Your task to perform on an android device: open app "HBO Max: Stream TV & Movies" (install if not already installed) and enter user name: "faring@outlook.com" and password: "appropriately" Image 0: 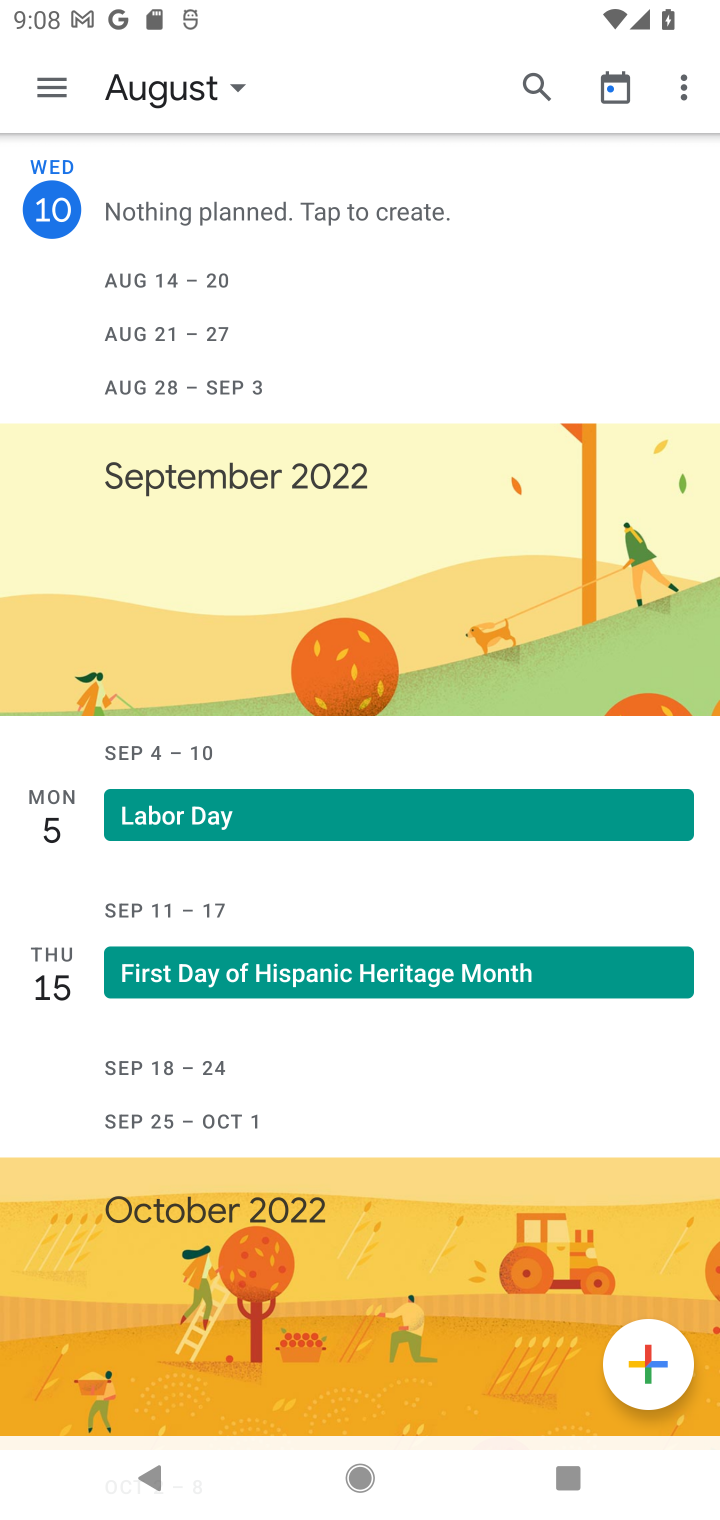
Step 0: press home button
Your task to perform on an android device: open app "HBO Max: Stream TV & Movies" (install if not already installed) and enter user name: "faring@outlook.com" and password: "appropriately" Image 1: 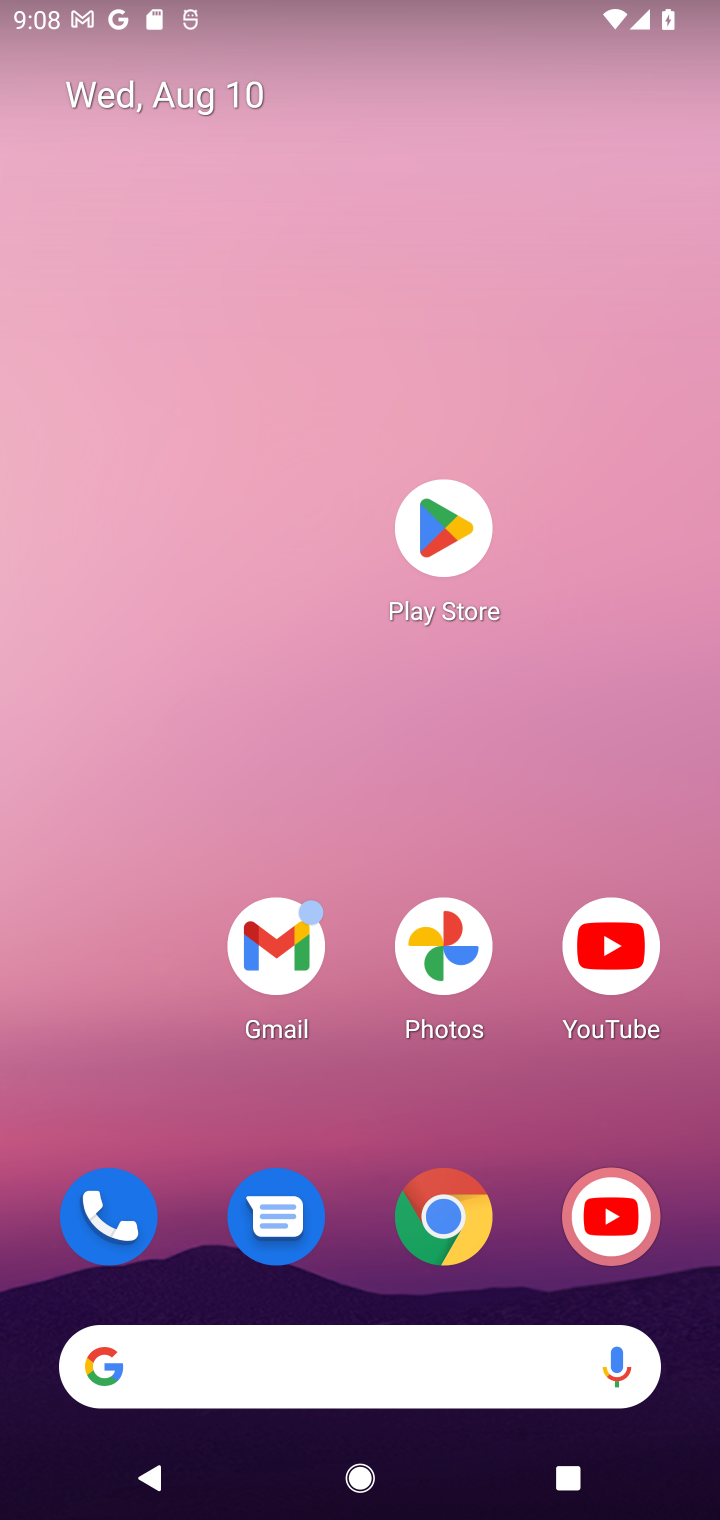
Step 1: click (448, 545)
Your task to perform on an android device: open app "HBO Max: Stream TV & Movies" (install if not already installed) and enter user name: "faring@outlook.com" and password: "appropriately" Image 2: 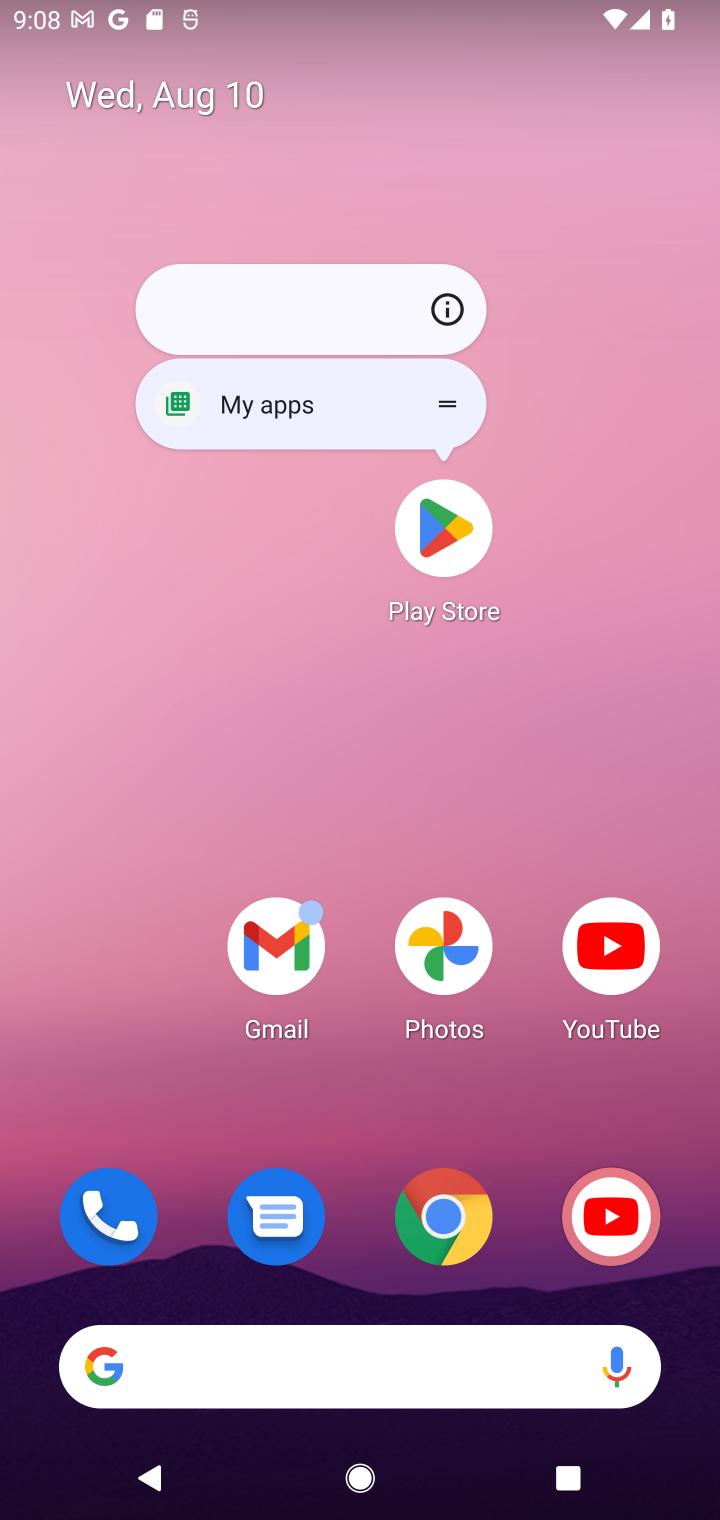
Step 2: click (444, 532)
Your task to perform on an android device: open app "HBO Max: Stream TV & Movies" (install if not already installed) and enter user name: "faring@outlook.com" and password: "appropriately" Image 3: 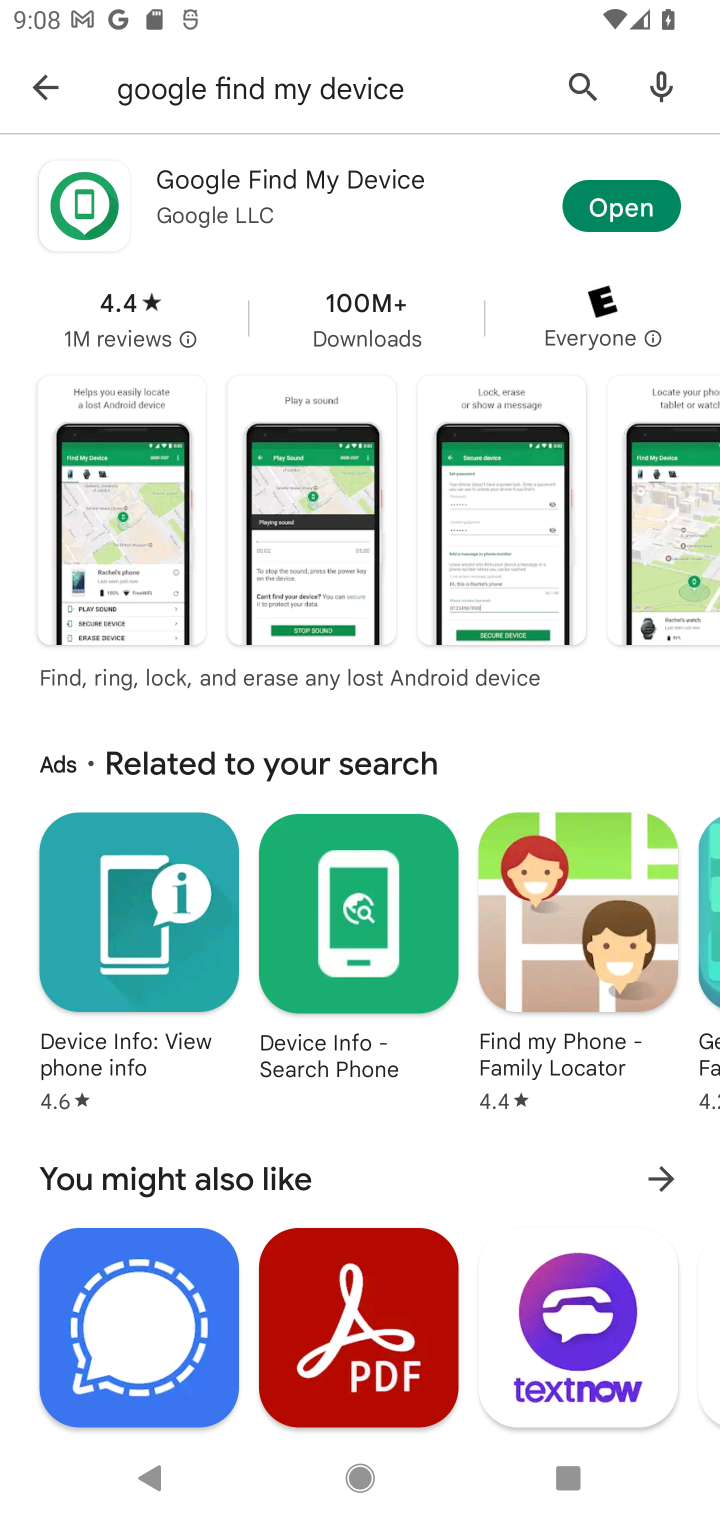
Step 3: click (572, 77)
Your task to perform on an android device: open app "HBO Max: Stream TV & Movies" (install if not already installed) and enter user name: "faring@outlook.com" and password: "appropriately" Image 4: 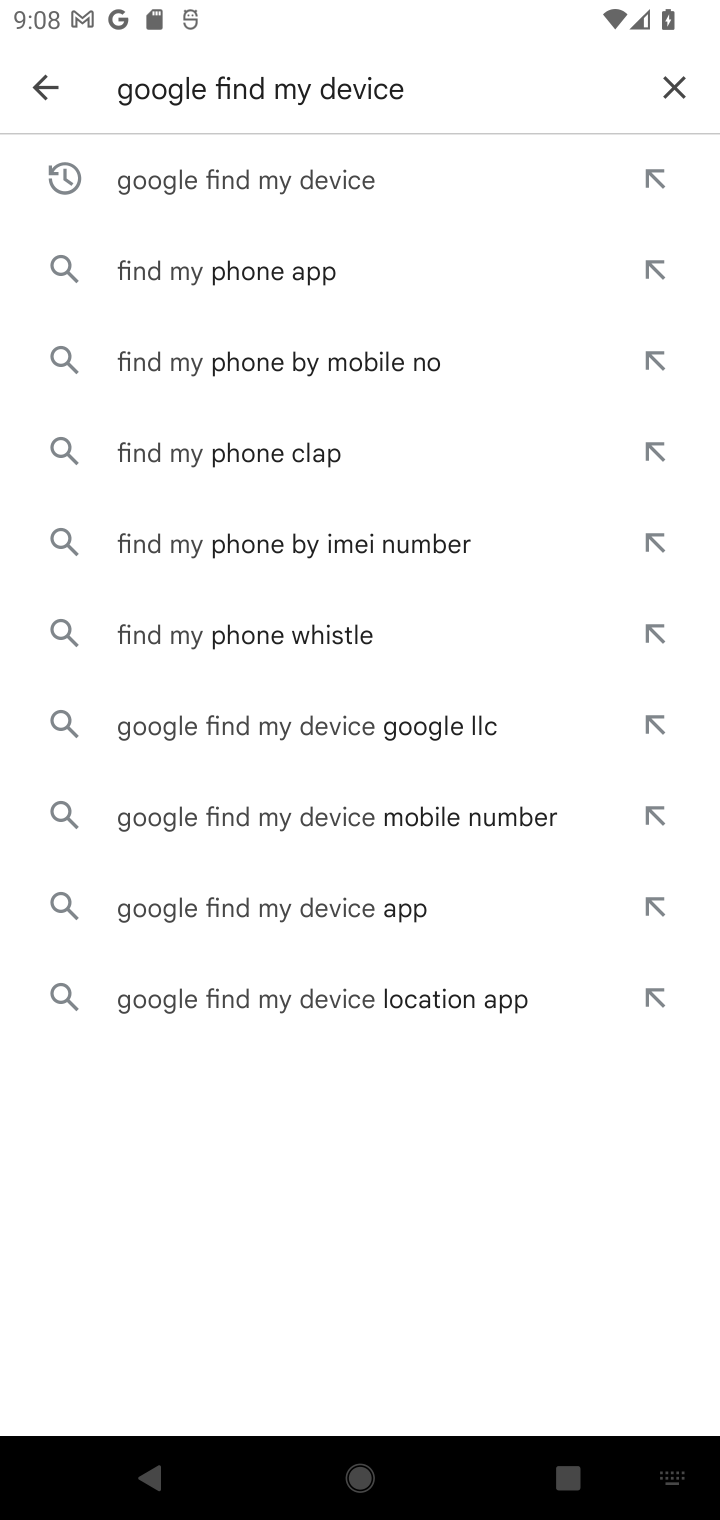
Step 4: click (668, 75)
Your task to perform on an android device: open app "HBO Max: Stream TV & Movies" (install if not already installed) and enter user name: "faring@outlook.com" and password: "appropriately" Image 5: 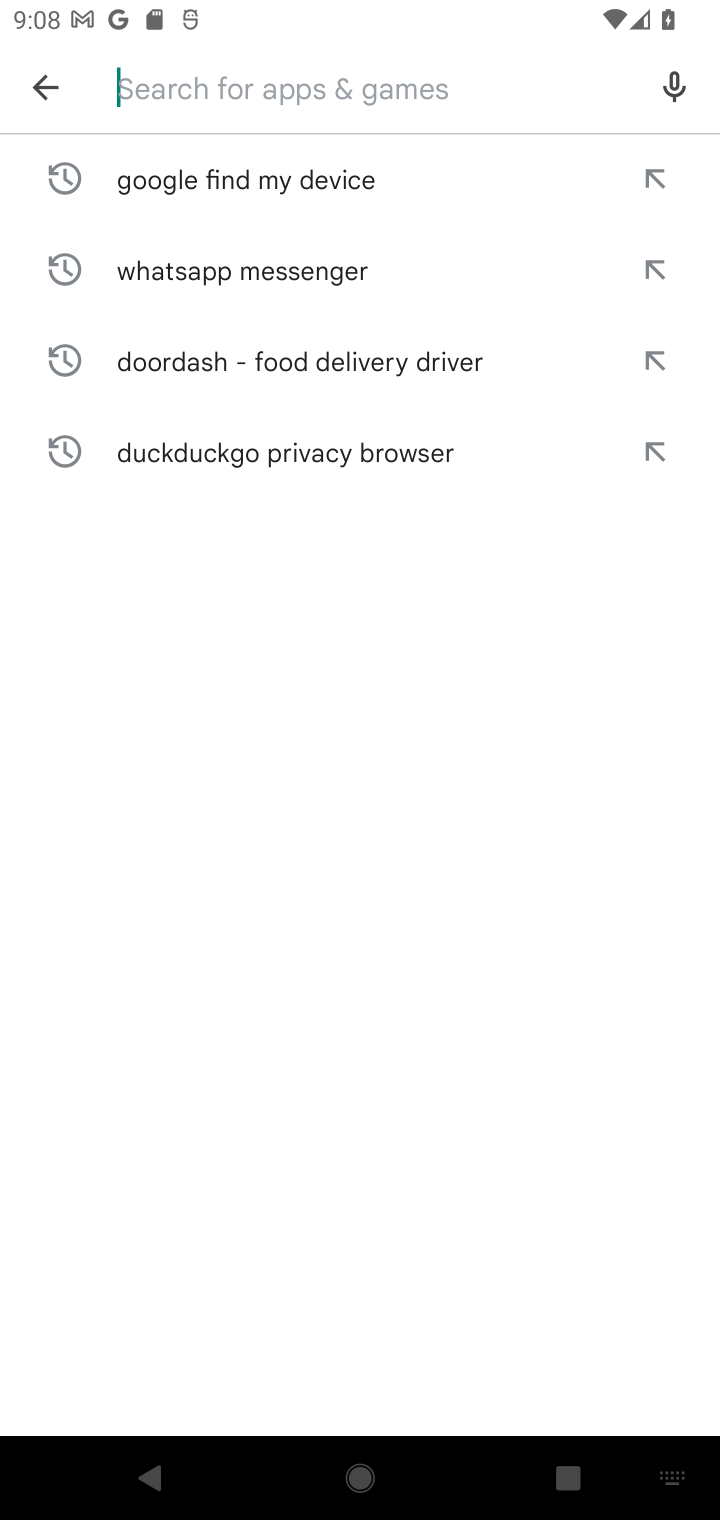
Step 5: type "HBO Max: Stream TV & Movies"
Your task to perform on an android device: open app "HBO Max: Stream TV & Movies" (install if not already installed) and enter user name: "faring@outlook.com" and password: "appropriately" Image 6: 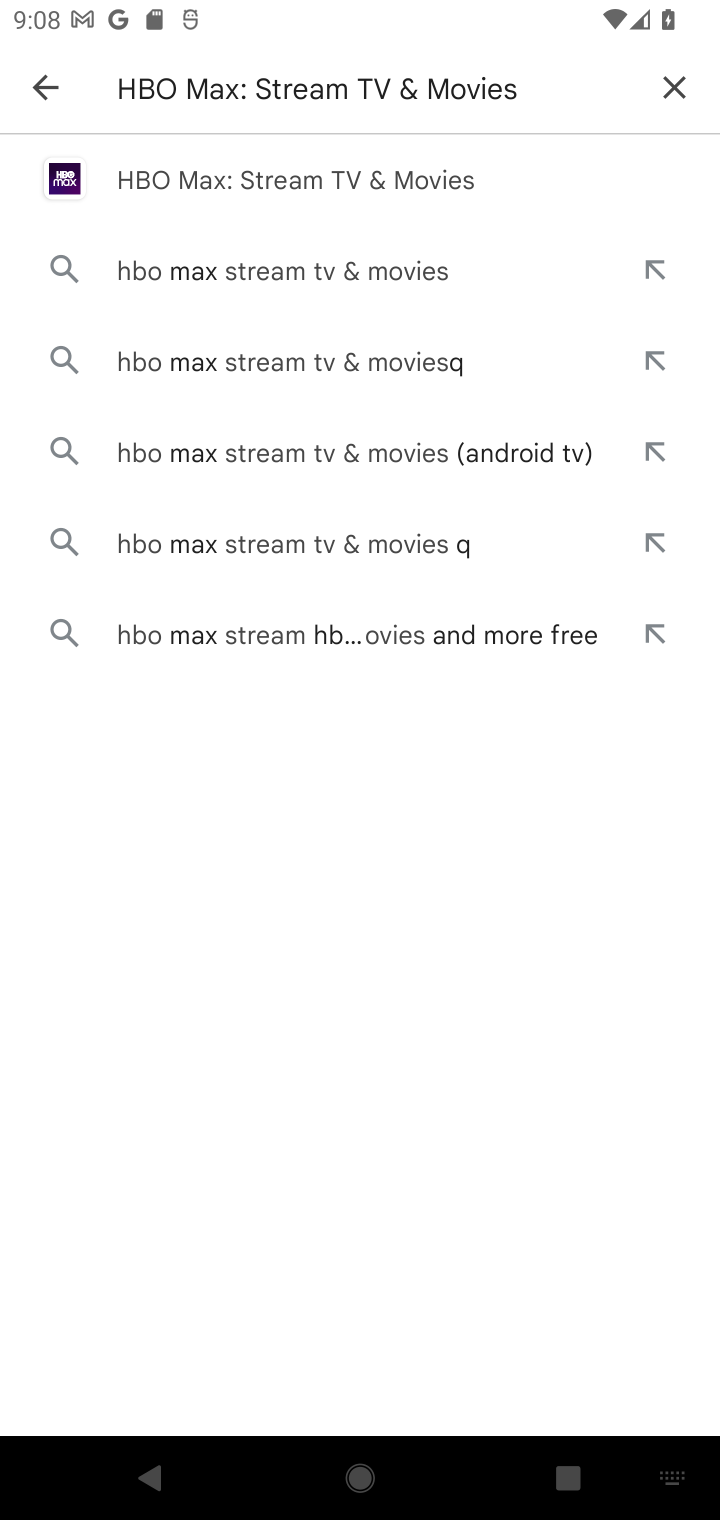
Step 6: click (325, 189)
Your task to perform on an android device: open app "HBO Max: Stream TV & Movies" (install if not already installed) and enter user name: "faring@outlook.com" and password: "appropriately" Image 7: 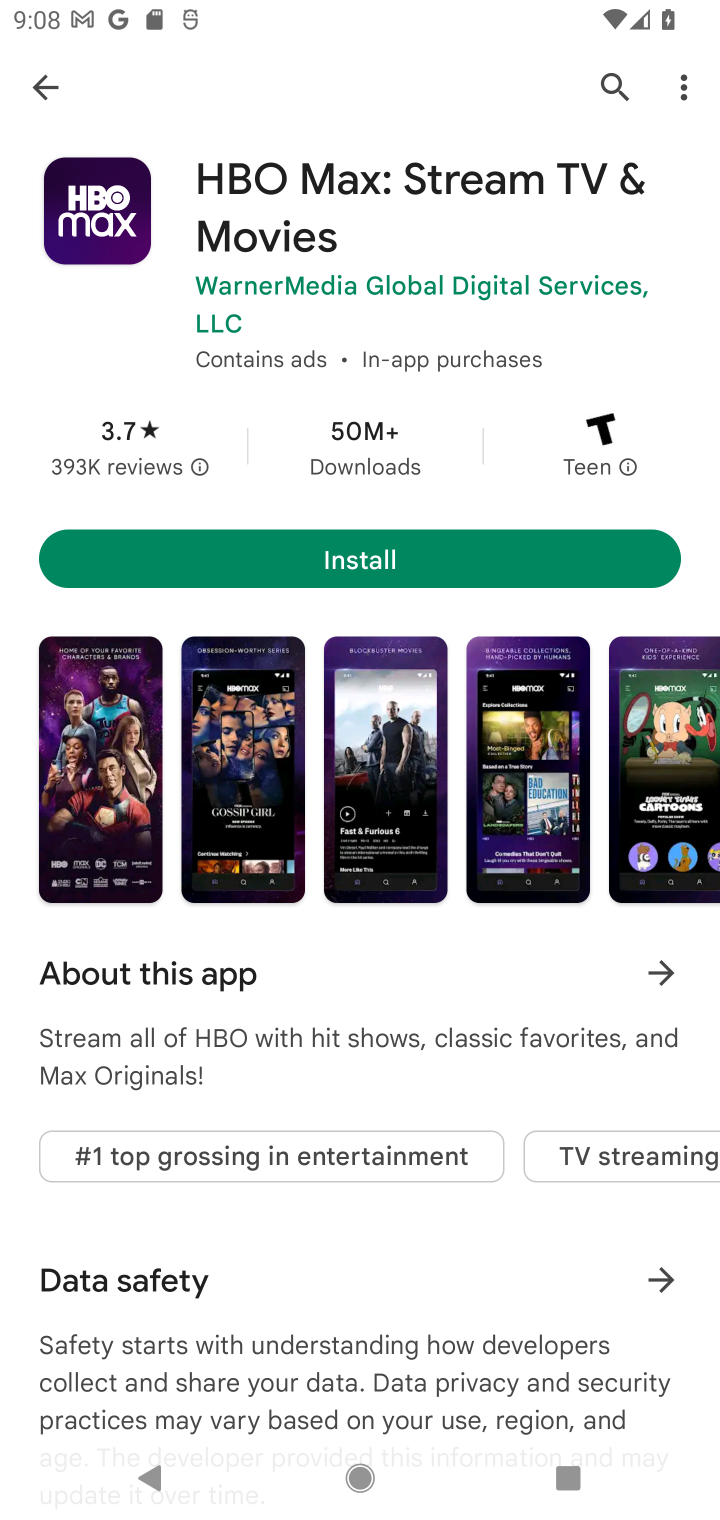
Step 7: click (412, 551)
Your task to perform on an android device: open app "HBO Max: Stream TV & Movies" (install if not already installed) and enter user name: "faring@outlook.com" and password: "appropriately" Image 8: 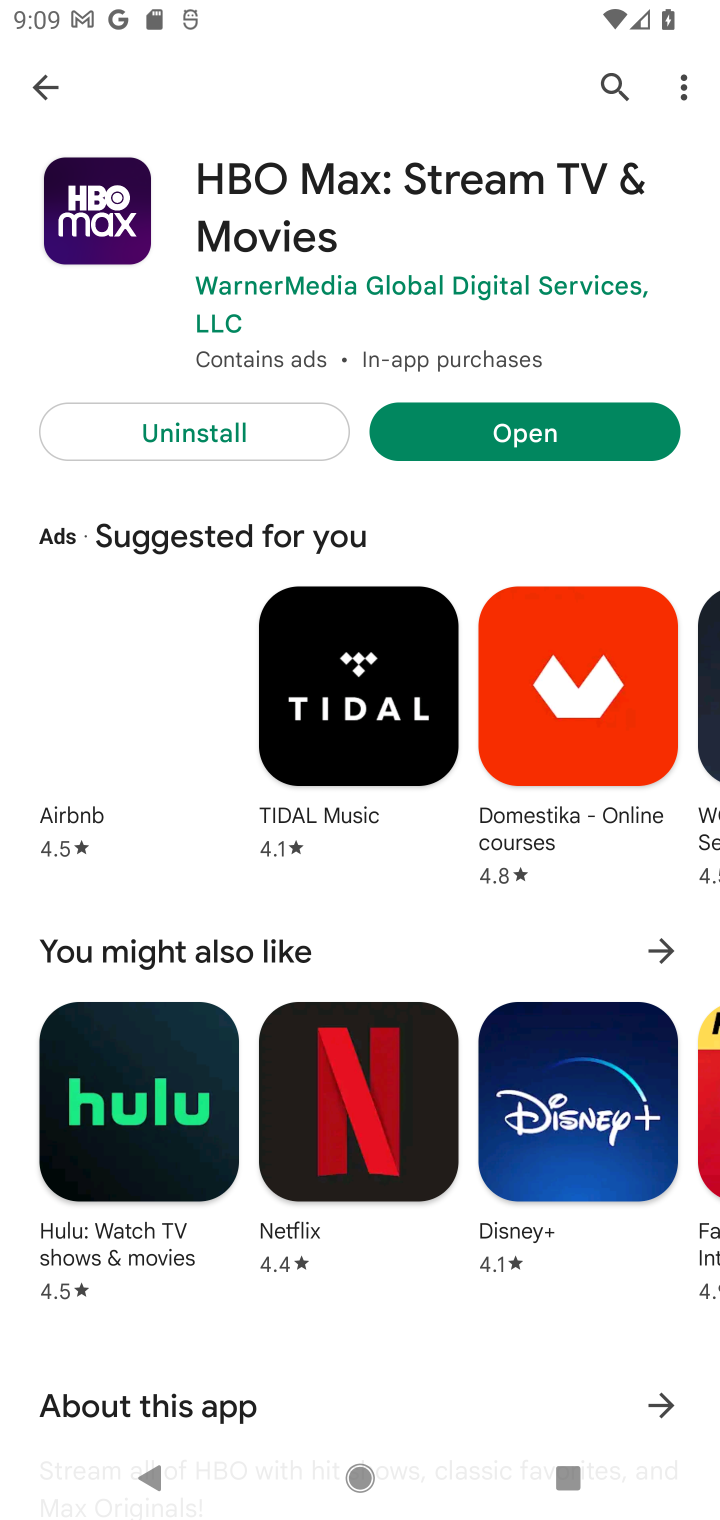
Step 8: click (563, 431)
Your task to perform on an android device: open app "HBO Max: Stream TV & Movies" (install if not already installed) and enter user name: "faring@outlook.com" and password: "appropriately" Image 9: 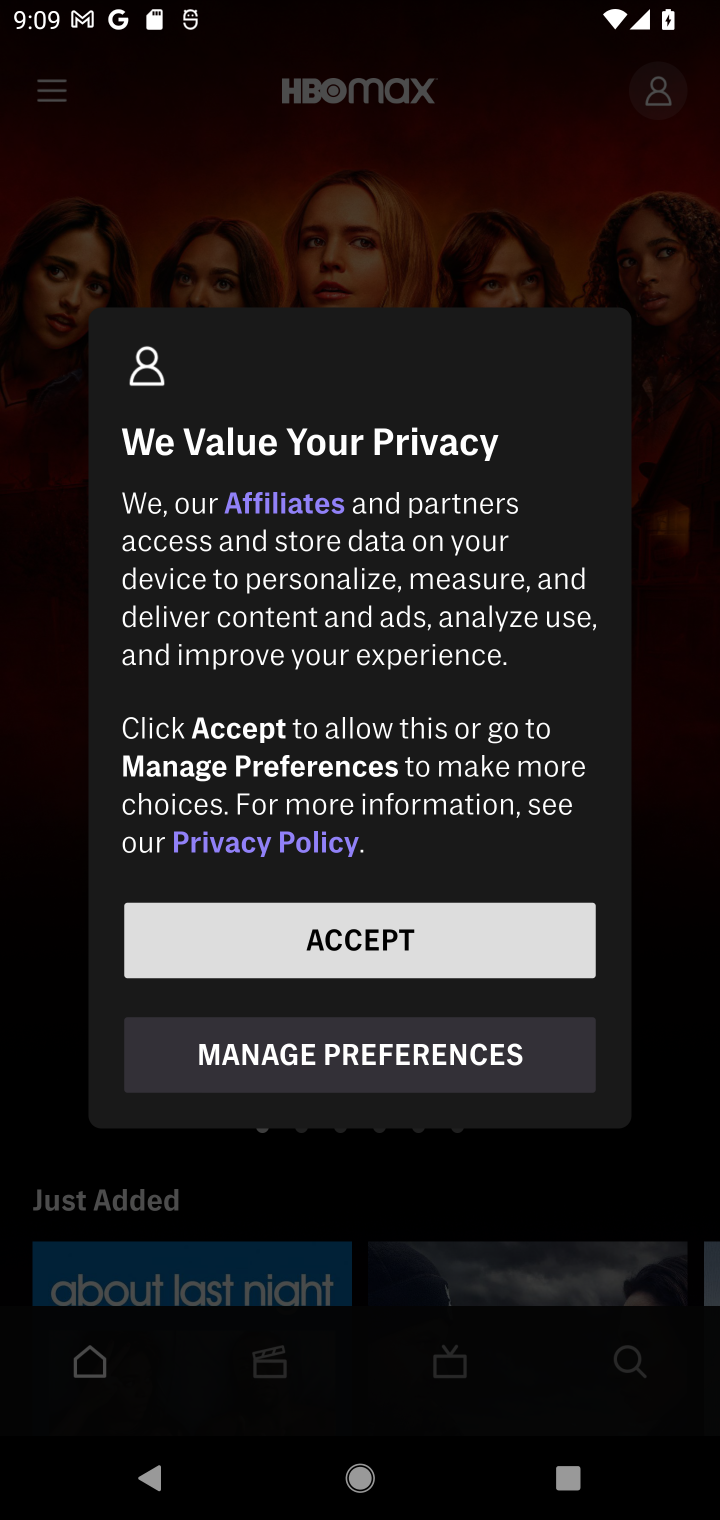
Step 9: task complete